Your task to perform on an android device: stop showing notifications on the lock screen Image 0: 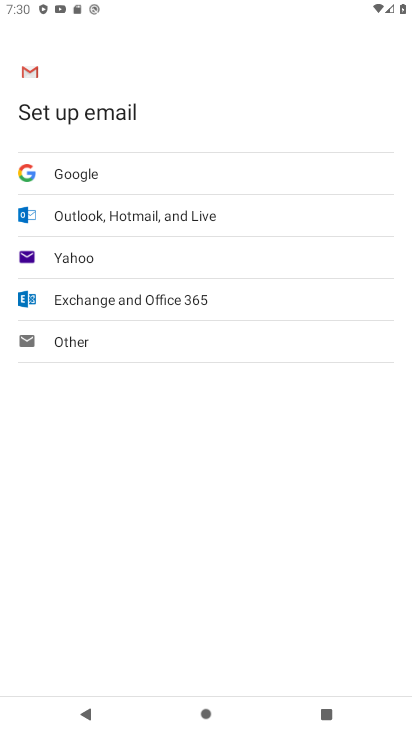
Step 0: press home button
Your task to perform on an android device: stop showing notifications on the lock screen Image 1: 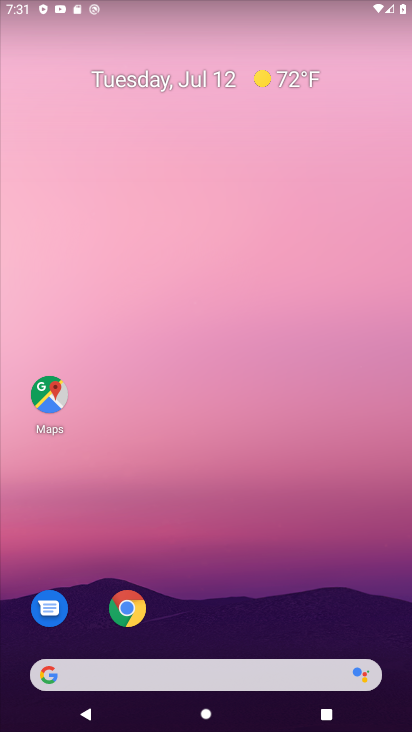
Step 1: drag from (332, 552) to (351, 47)
Your task to perform on an android device: stop showing notifications on the lock screen Image 2: 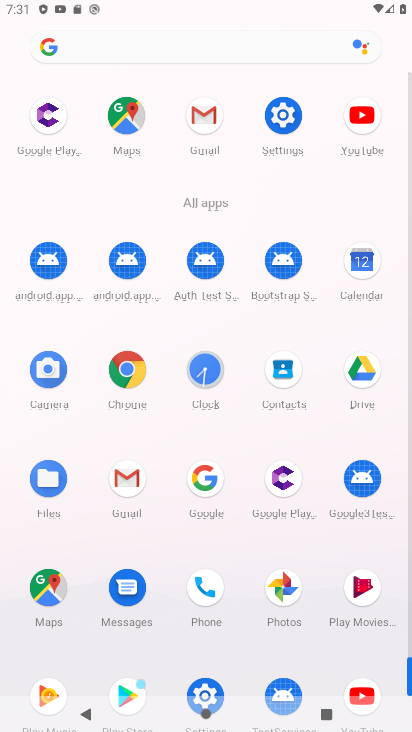
Step 2: click (277, 113)
Your task to perform on an android device: stop showing notifications on the lock screen Image 3: 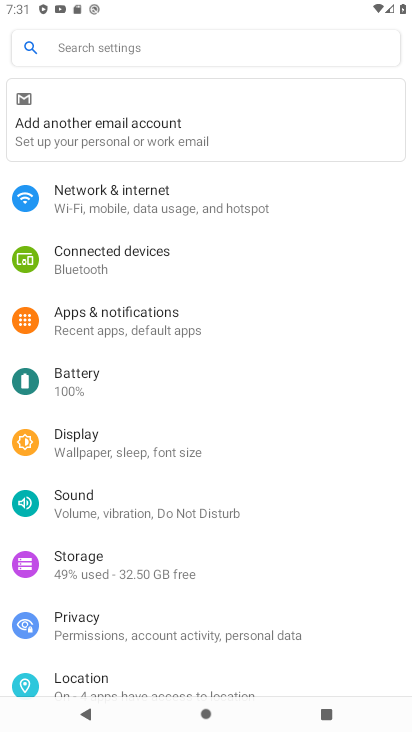
Step 3: drag from (337, 395) to (341, 287)
Your task to perform on an android device: stop showing notifications on the lock screen Image 4: 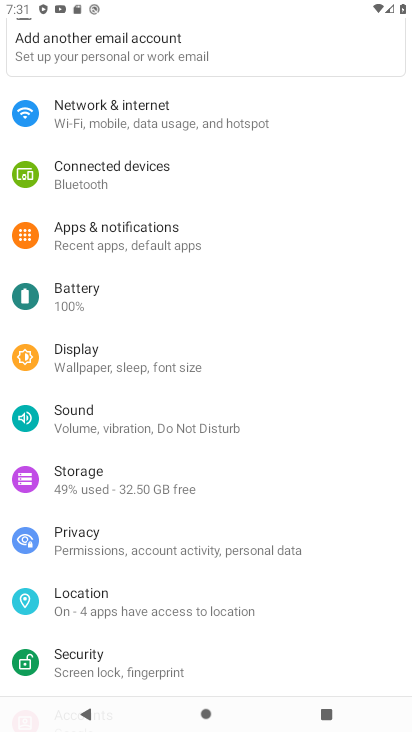
Step 4: drag from (350, 440) to (354, 339)
Your task to perform on an android device: stop showing notifications on the lock screen Image 5: 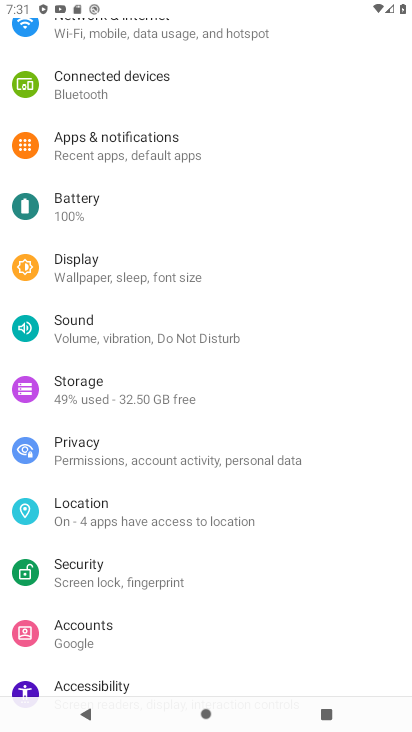
Step 5: drag from (361, 435) to (357, 341)
Your task to perform on an android device: stop showing notifications on the lock screen Image 6: 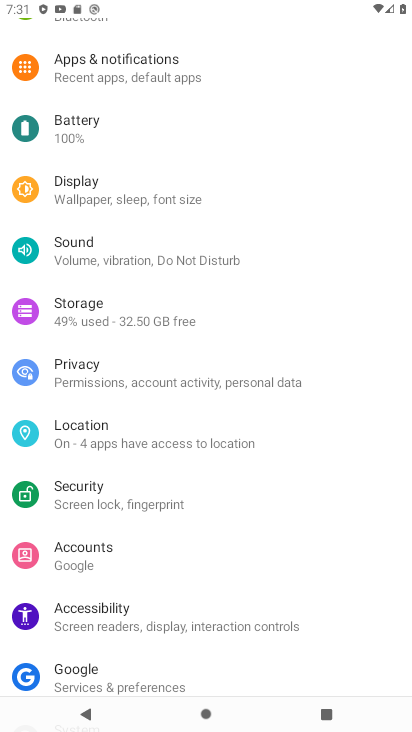
Step 6: drag from (358, 455) to (363, 353)
Your task to perform on an android device: stop showing notifications on the lock screen Image 7: 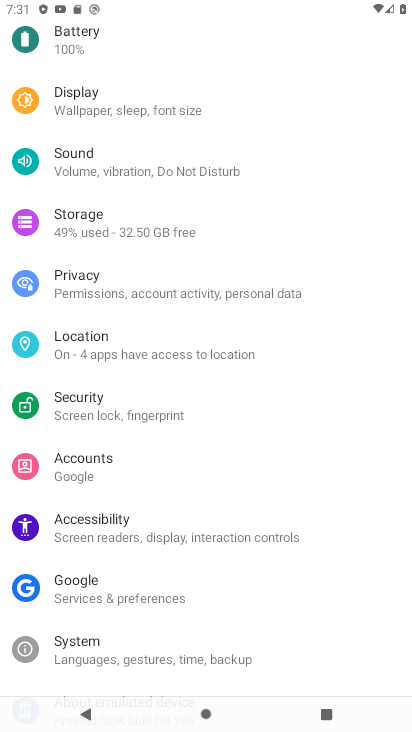
Step 7: drag from (362, 451) to (359, 335)
Your task to perform on an android device: stop showing notifications on the lock screen Image 8: 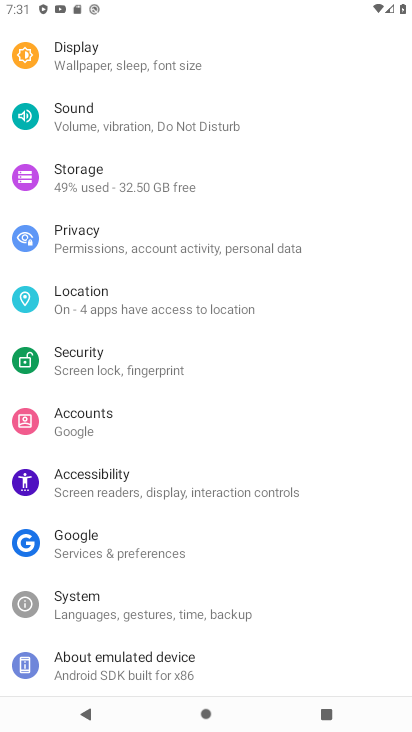
Step 8: drag from (344, 380) to (345, 265)
Your task to perform on an android device: stop showing notifications on the lock screen Image 9: 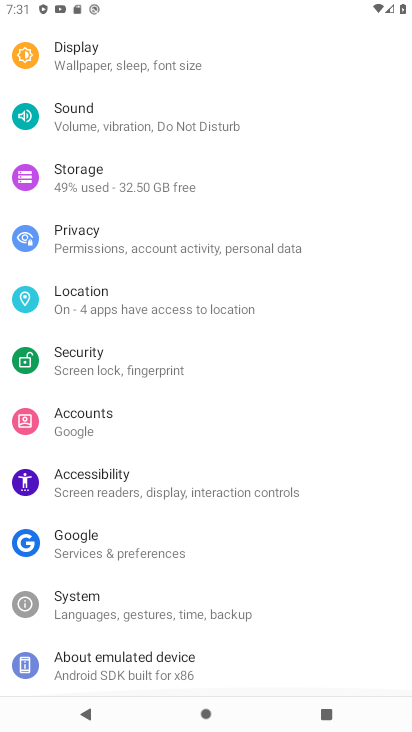
Step 9: drag from (358, 248) to (359, 316)
Your task to perform on an android device: stop showing notifications on the lock screen Image 10: 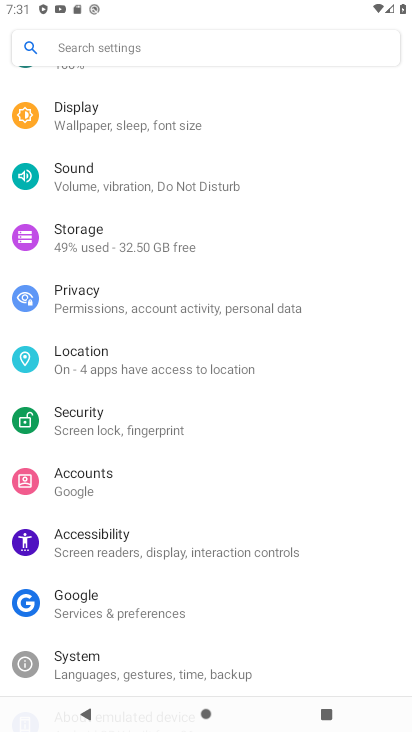
Step 10: drag from (358, 273) to (357, 350)
Your task to perform on an android device: stop showing notifications on the lock screen Image 11: 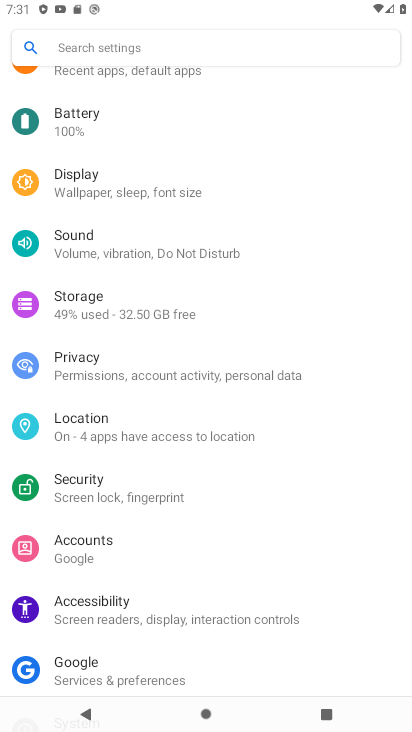
Step 11: drag from (365, 289) to (365, 361)
Your task to perform on an android device: stop showing notifications on the lock screen Image 12: 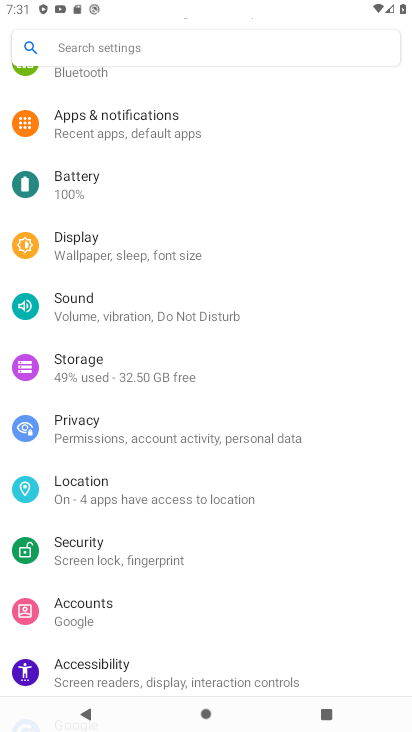
Step 12: drag from (360, 306) to (359, 370)
Your task to perform on an android device: stop showing notifications on the lock screen Image 13: 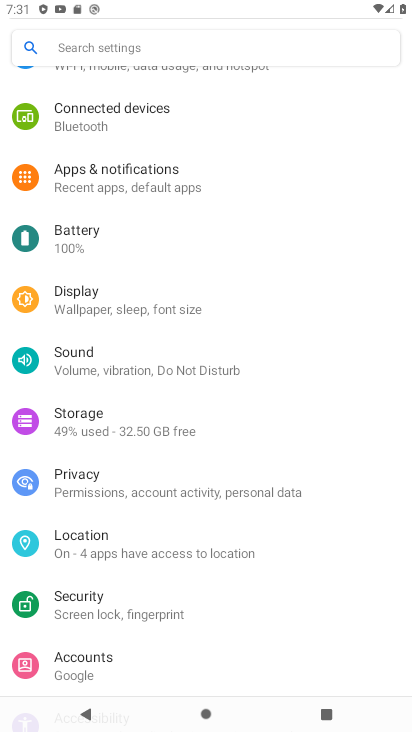
Step 13: drag from (358, 320) to (360, 400)
Your task to perform on an android device: stop showing notifications on the lock screen Image 14: 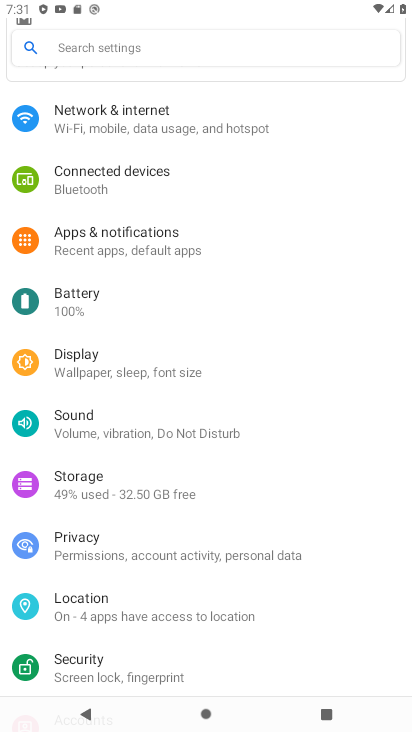
Step 14: drag from (361, 304) to (363, 400)
Your task to perform on an android device: stop showing notifications on the lock screen Image 15: 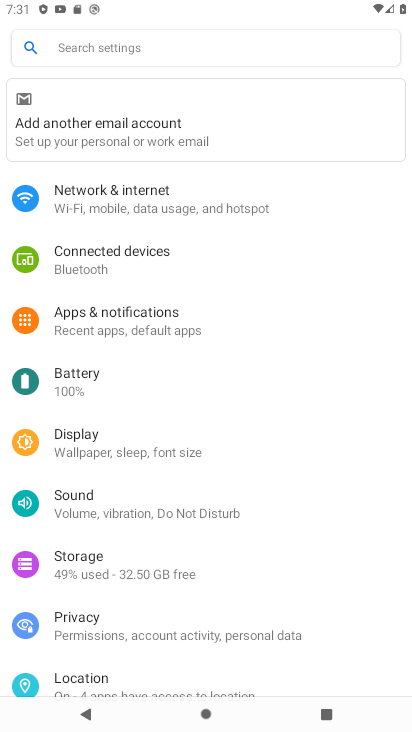
Step 15: drag from (364, 291) to (346, 442)
Your task to perform on an android device: stop showing notifications on the lock screen Image 16: 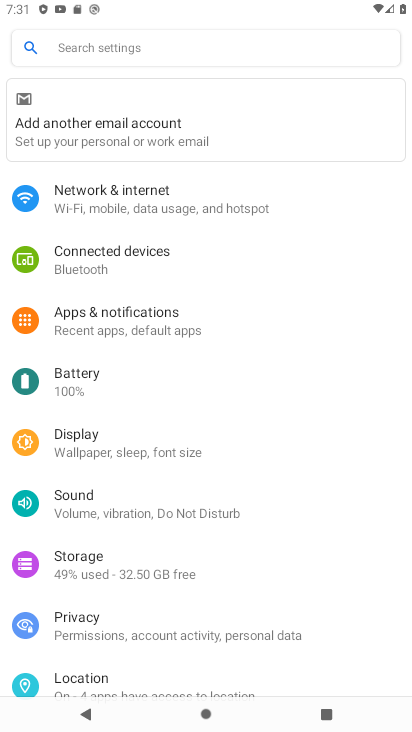
Step 16: click (207, 326)
Your task to perform on an android device: stop showing notifications on the lock screen Image 17: 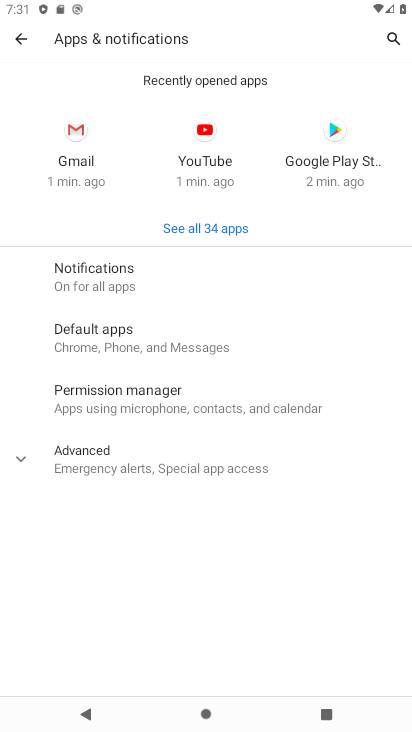
Step 17: click (147, 283)
Your task to perform on an android device: stop showing notifications on the lock screen Image 18: 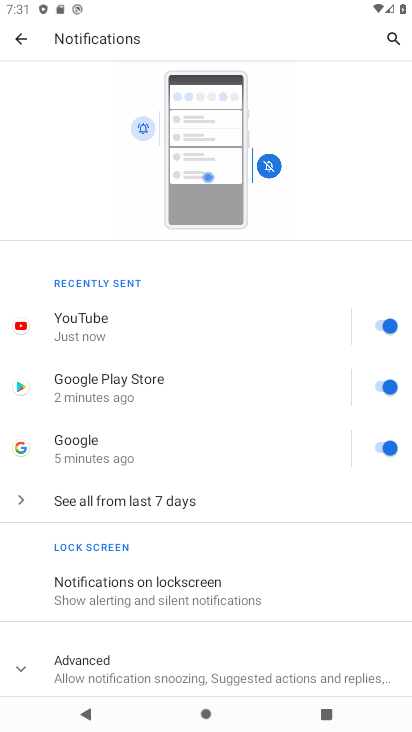
Step 18: drag from (262, 430) to (265, 297)
Your task to perform on an android device: stop showing notifications on the lock screen Image 19: 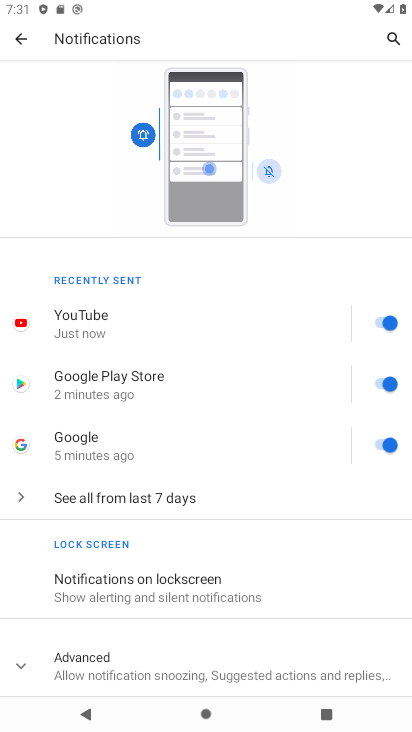
Step 19: click (248, 589)
Your task to perform on an android device: stop showing notifications on the lock screen Image 20: 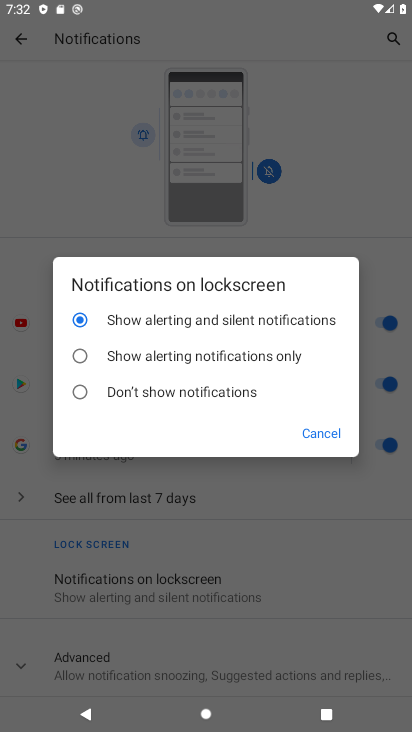
Step 20: click (130, 396)
Your task to perform on an android device: stop showing notifications on the lock screen Image 21: 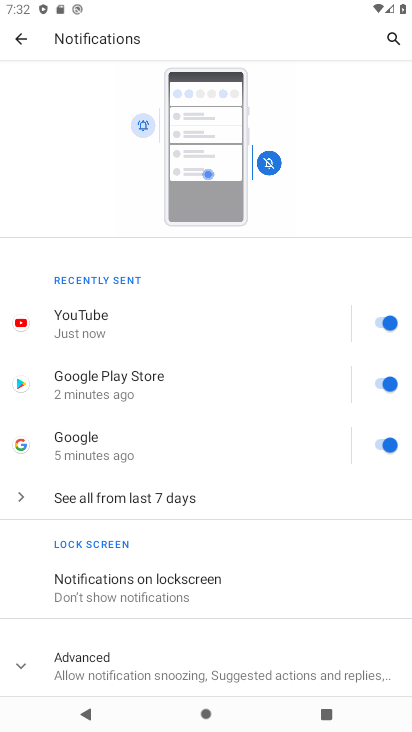
Step 21: task complete